Your task to perform on an android device: set an alarm Image 0: 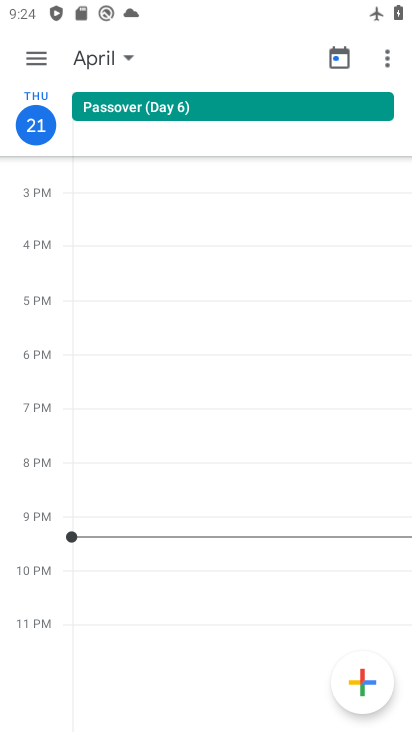
Step 0: press home button
Your task to perform on an android device: set an alarm Image 1: 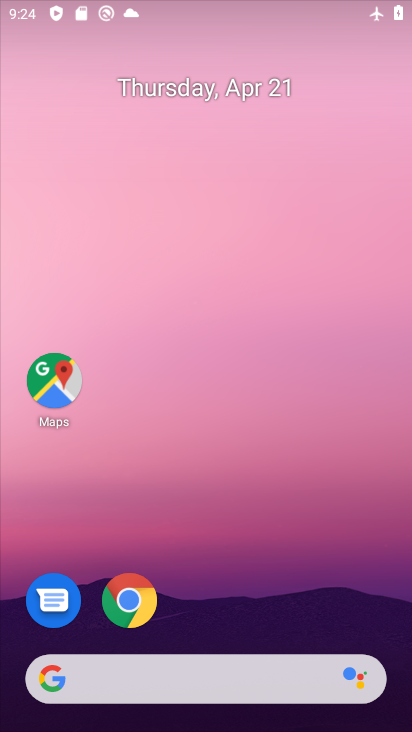
Step 1: drag from (245, 545) to (213, 48)
Your task to perform on an android device: set an alarm Image 2: 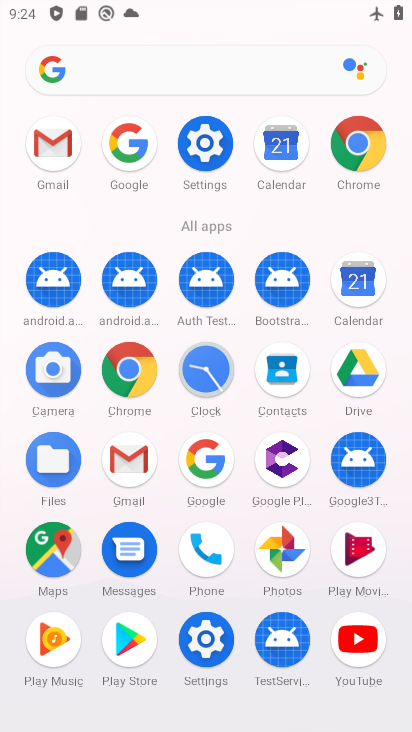
Step 2: click (205, 371)
Your task to perform on an android device: set an alarm Image 3: 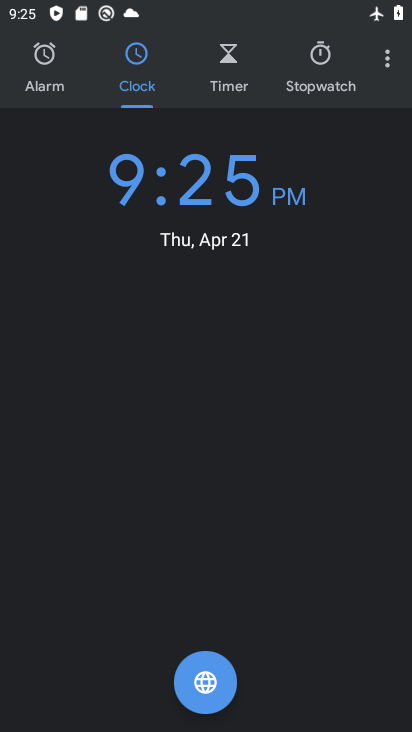
Step 3: click (35, 74)
Your task to perform on an android device: set an alarm Image 4: 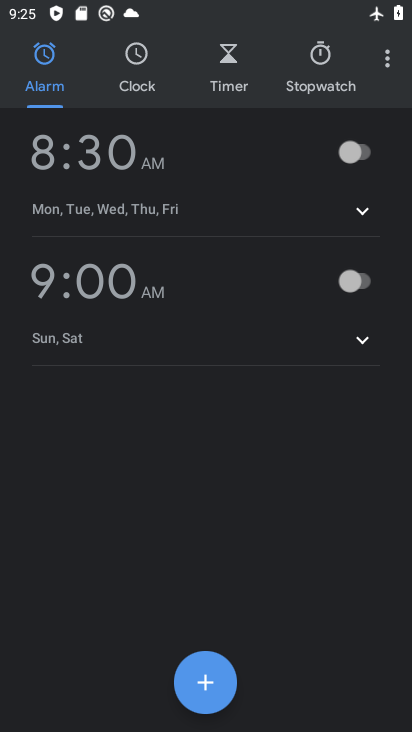
Step 4: click (349, 143)
Your task to perform on an android device: set an alarm Image 5: 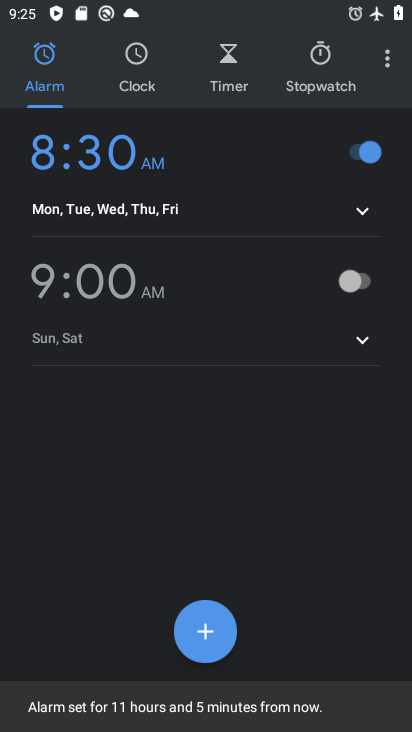
Step 5: task complete